Your task to perform on an android device: open the mobile data screen to see how much data has been used Image 0: 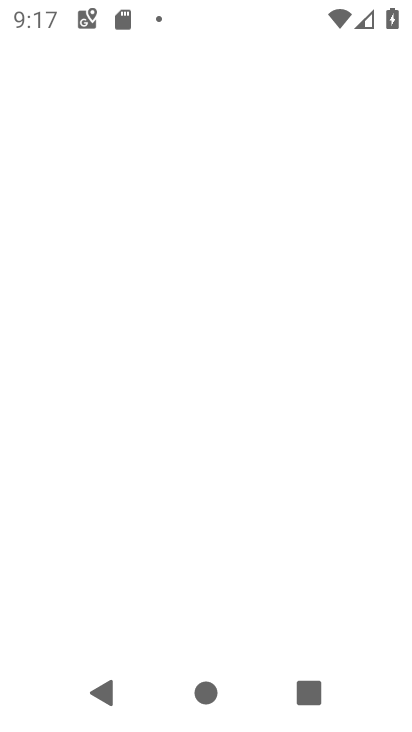
Step 0: click (256, 453)
Your task to perform on an android device: open the mobile data screen to see how much data has been used Image 1: 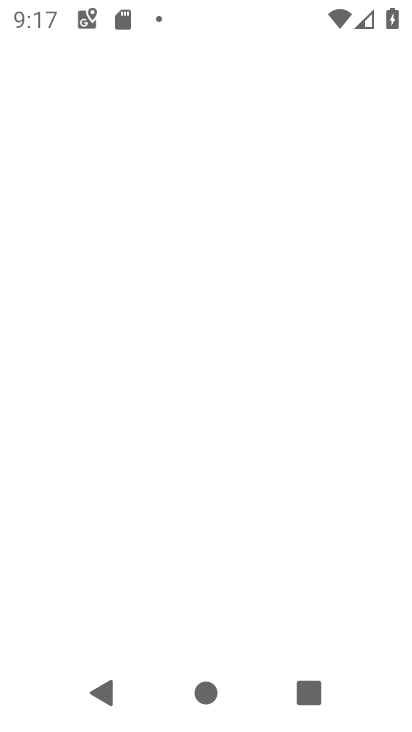
Step 1: press home button
Your task to perform on an android device: open the mobile data screen to see how much data has been used Image 2: 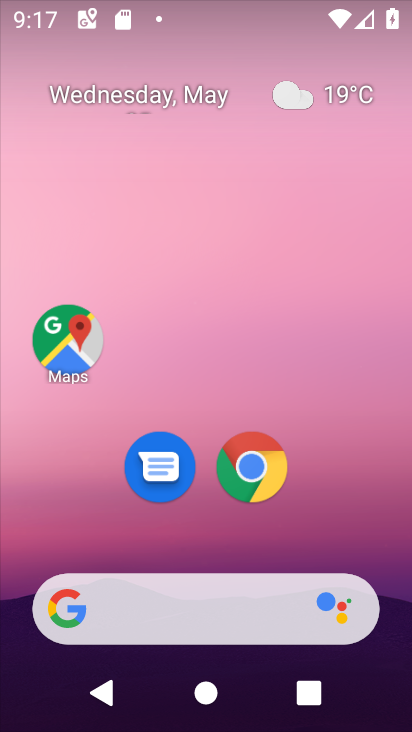
Step 2: drag from (406, 540) to (388, 147)
Your task to perform on an android device: open the mobile data screen to see how much data has been used Image 3: 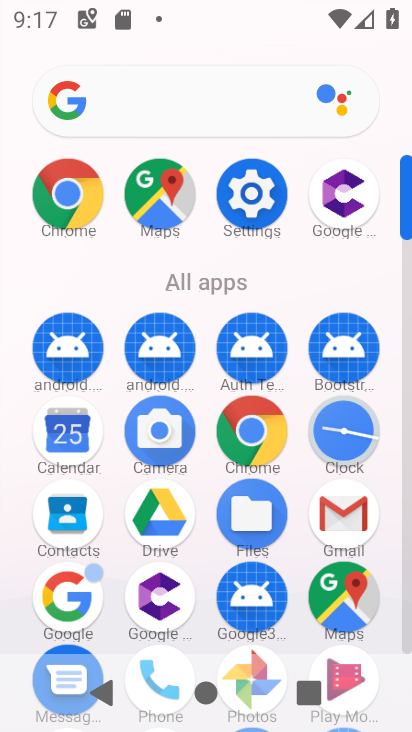
Step 3: click (254, 202)
Your task to perform on an android device: open the mobile data screen to see how much data has been used Image 4: 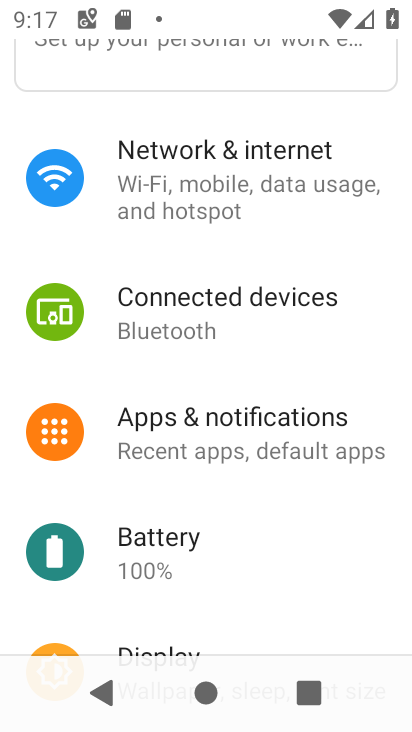
Step 4: click (253, 198)
Your task to perform on an android device: open the mobile data screen to see how much data has been used Image 5: 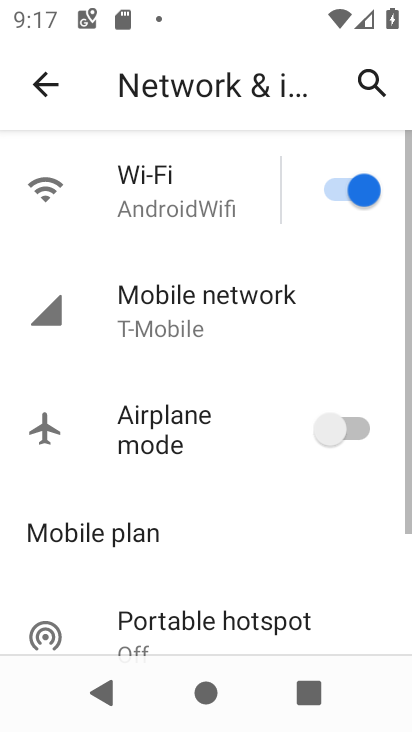
Step 5: click (219, 302)
Your task to perform on an android device: open the mobile data screen to see how much data has been used Image 6: 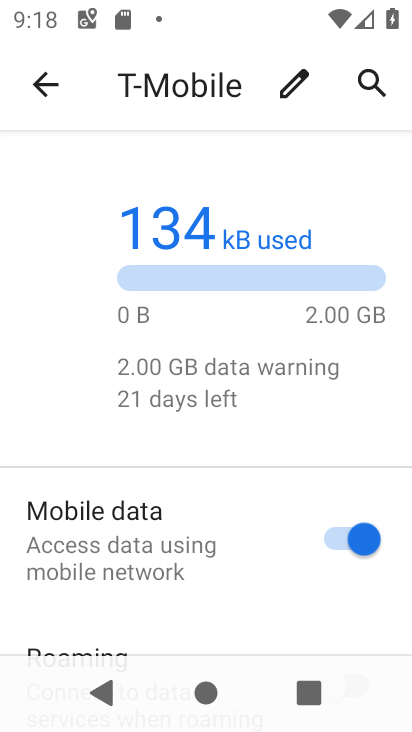
Step 6: task complete